Your task to perform on an android device: See recent photos Image 0: 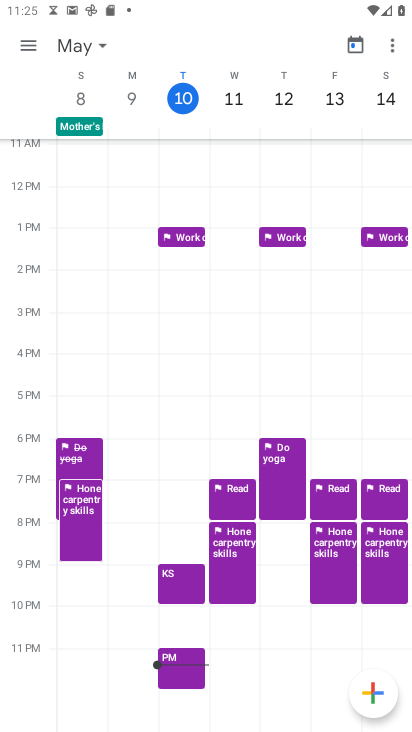
Step 0: press home button
Your task to perform on an android device: See recent photos Image 1: 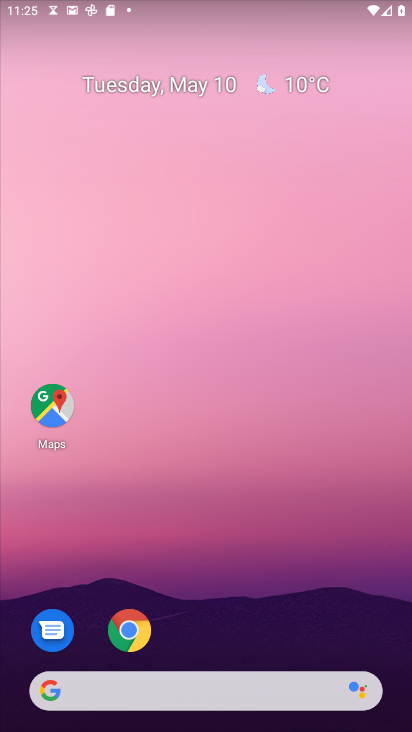
Step 1: drag from (232, 633) to (295, 100)
Your task to perform on an android device: See recent photos Image 2: 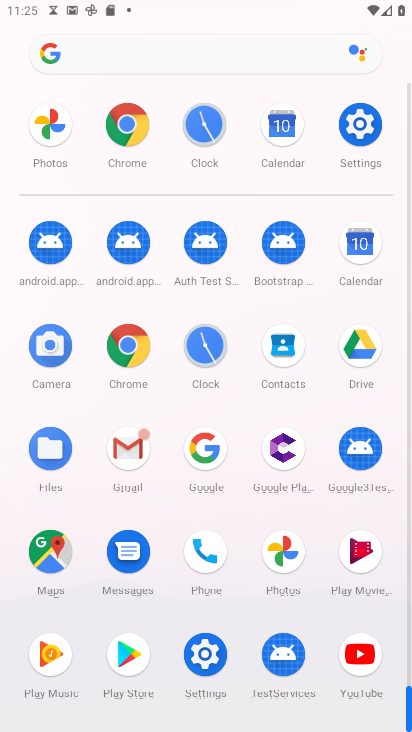
Step 2: click (272, 555)
Your task to perform on an android device: See recent photos Image 3: 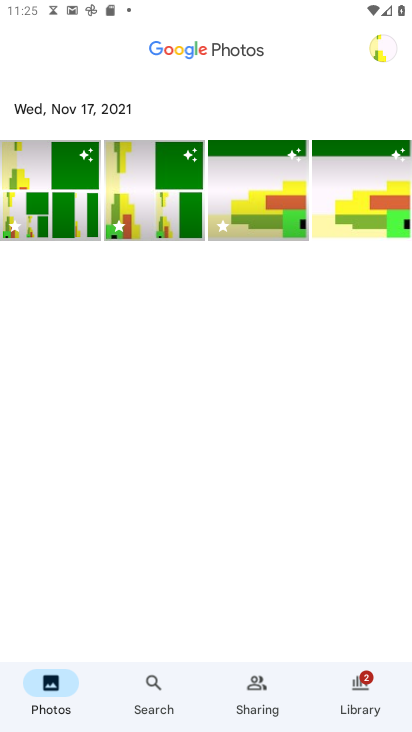
Step 3: click (153, 676)
Your task to perform on an android device: See recent photos Image 4: 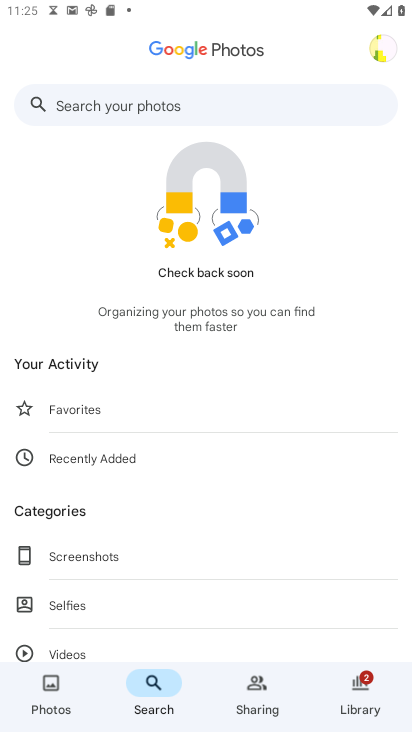
Step 4: click (119, 450)
Your task to perform on an android device: See recent photos Image 5: 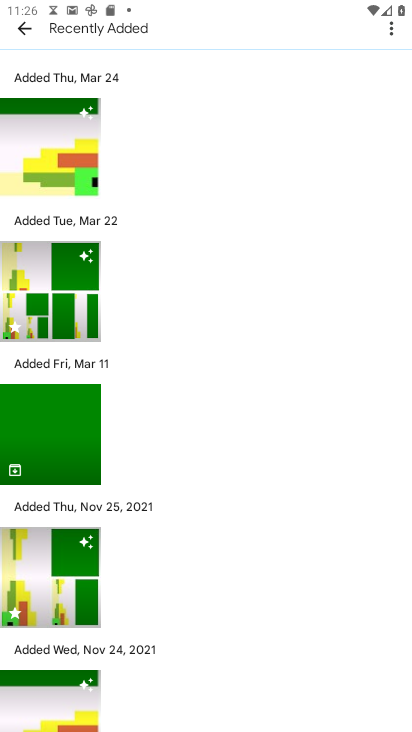
Step 5: task complete